Your task to perform on an android device: Play the last video I watched on Youtube Image 0: 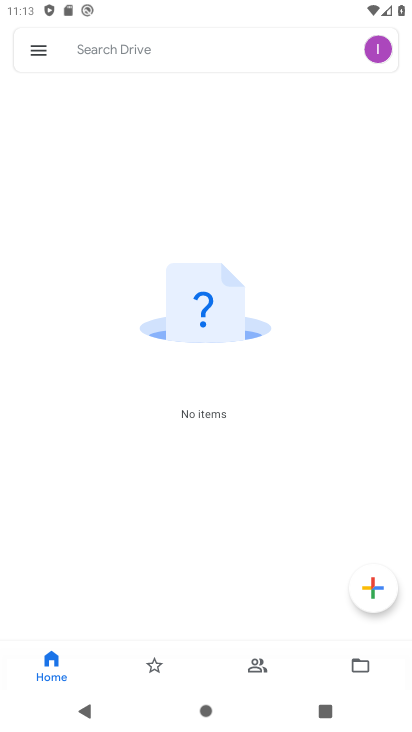
Step 0: press home button
Your task to perform on an android device: Play the last video I watched on Youtube Image 1: 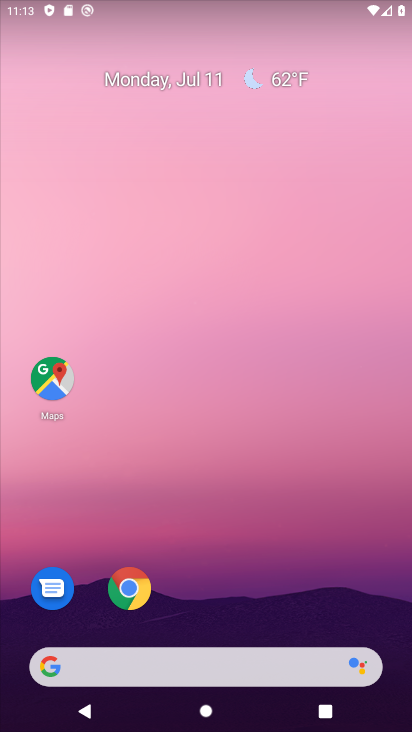
Step 1: drag from (202, 575) to (157, 112)
Your task to perform on an android device: Play the last video I watched on Youtube Image 2: 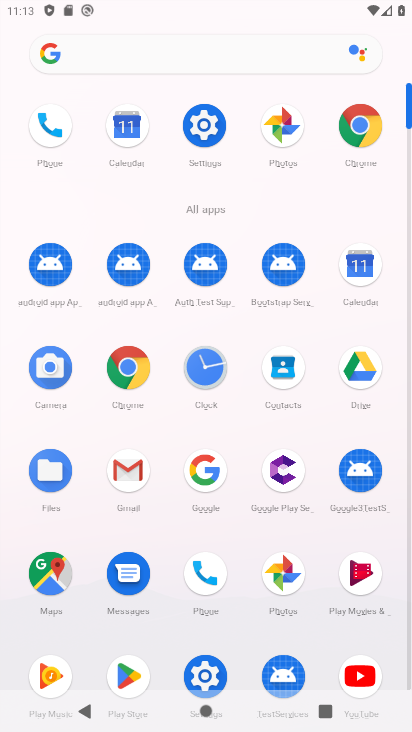
Step 2: click (363, 675)
Your task to perform on an android device: Play the last video I watched on Youtube Image 3: 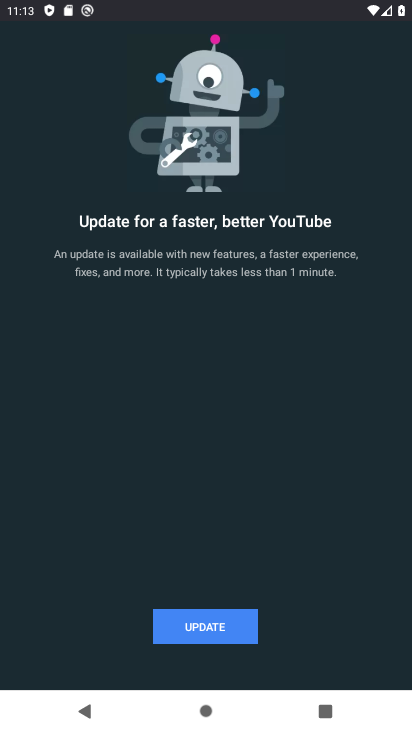
Step 3: click (174, 625)
Your task to perform on an android device: Play the last video I watched on Youtube Image 4: 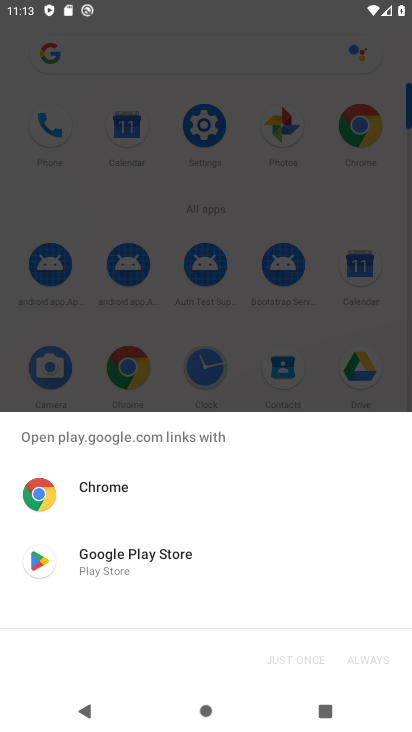
Step 4: click (145, 566)
Your task to perform on an android device: Play the last video I watched on Youtube Image 5: 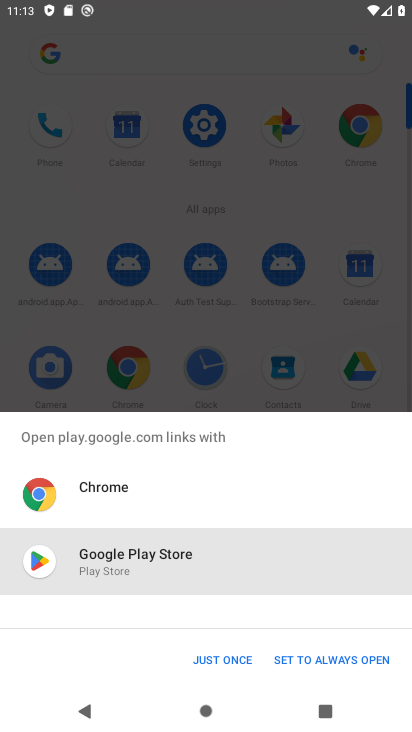
Step 5: click (315, 655)
Your task to perform on an android device: Play the last video I watched on Youtube Image 6: 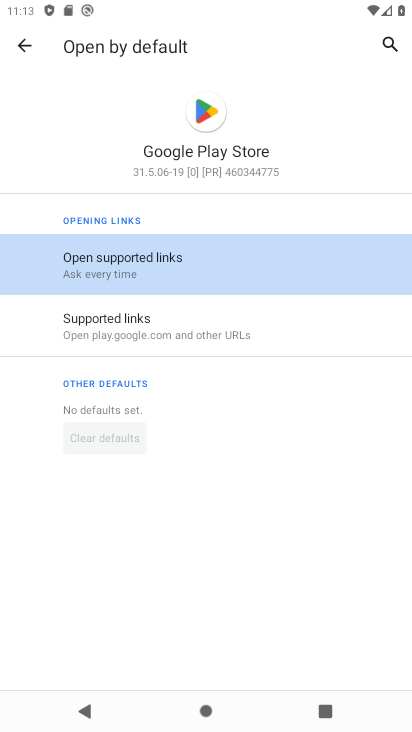
Step 6: click (177, 258)
Your task to perform on an android device: Play the last video I watched on Youtube Image 7: 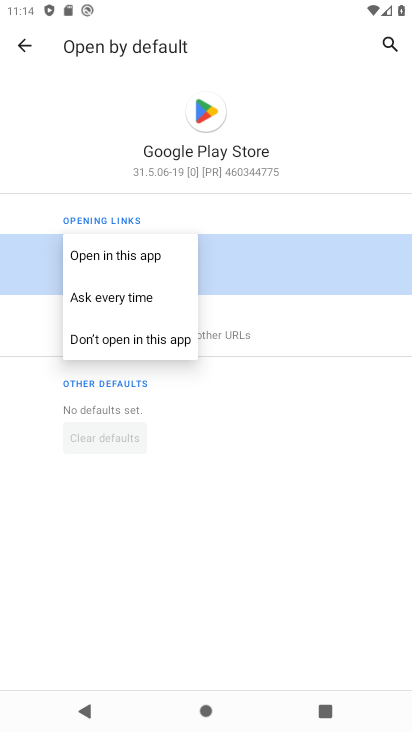
Step 7: click (135, 254)
Your task to perform on an android device: Play the last video I watched on Youtube Image 8: 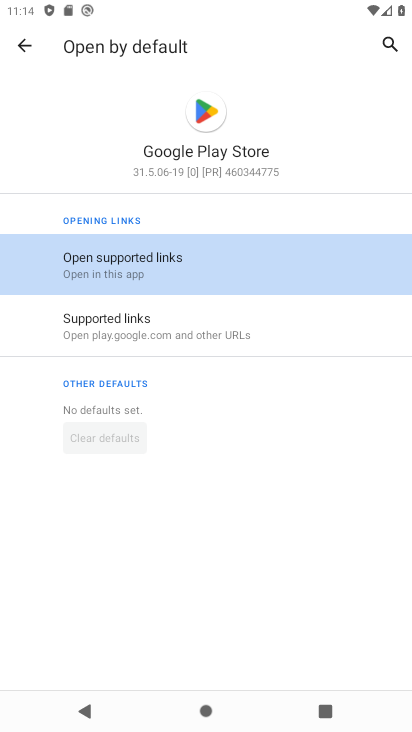
Step 8: click (27, 42)
Your task to perform on an android device: Play the last video I watched on Youtube Image 9: 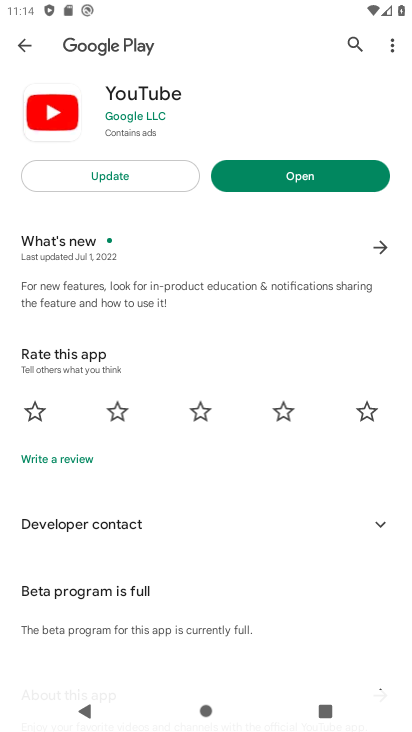
Step 9: click (91, 173)
Your task to perform on an android device: Play the last video I watched on Youtube Image 10: 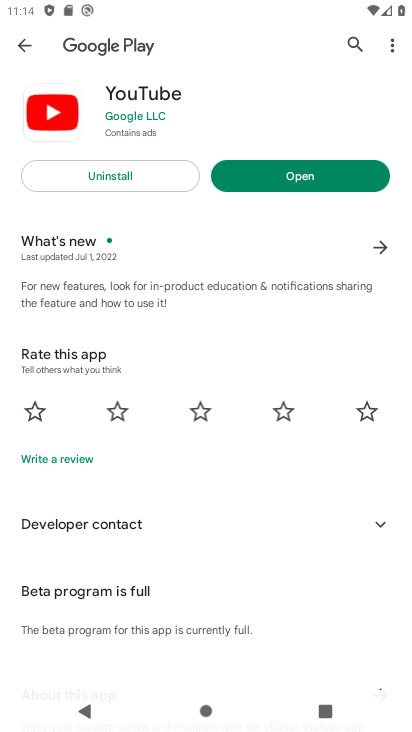
Step 10: click (308, 186)
Your task to perform on an android device: Play the last video I watched on Youtube Image 11: 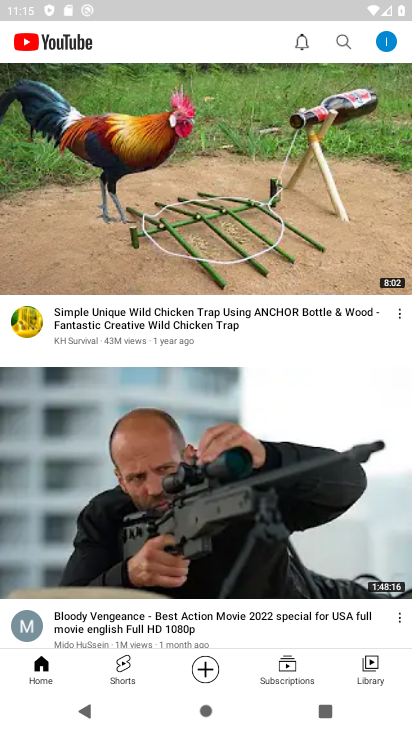
Step 11: task complete